Your task to perform on an android device: Open ESPN.com Image 0: 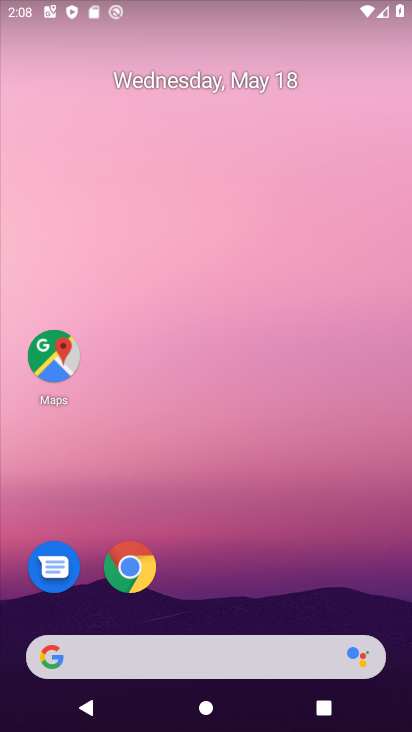
Step 0: drag from (241, 599) to (241, 267)
Your task to perform on an android device: Open ESPN.com Image 1: 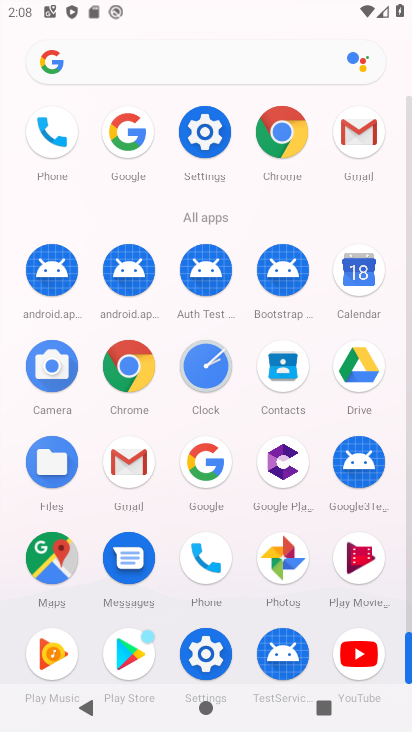
Step 1: click (277, 136)
Your task to perform on an android device: Open ESPN.com Image 2: 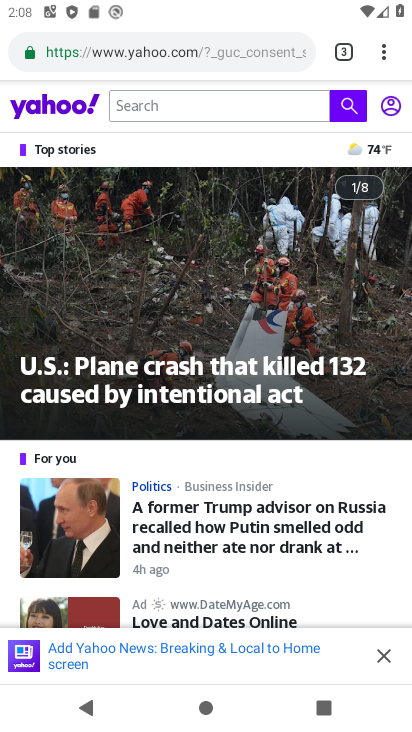
Step 2: click (391, 55)
Your task to perform on an android device: Open ESPN.com Image 3: 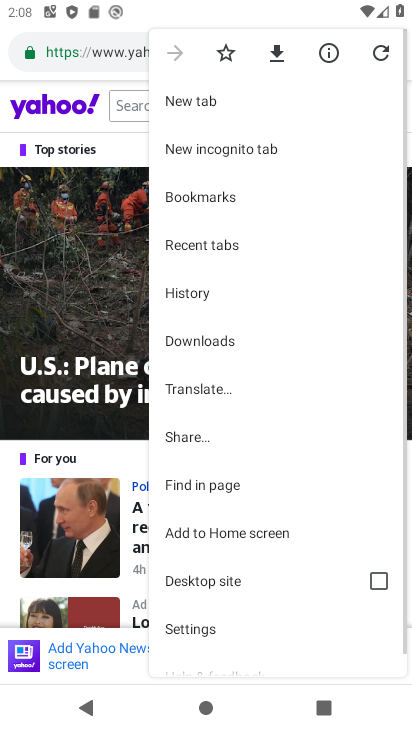
Step 3: drag from (211, 606) to (268, 352)
Your task to perform on an android device: Open ESPN.com Image 4: 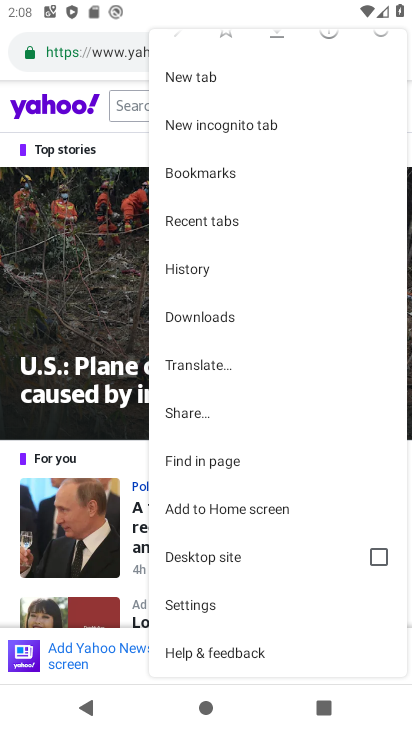
Step 4: click (207, 76)
Your task to perform on an android device: Open ESPN.com Image 5: 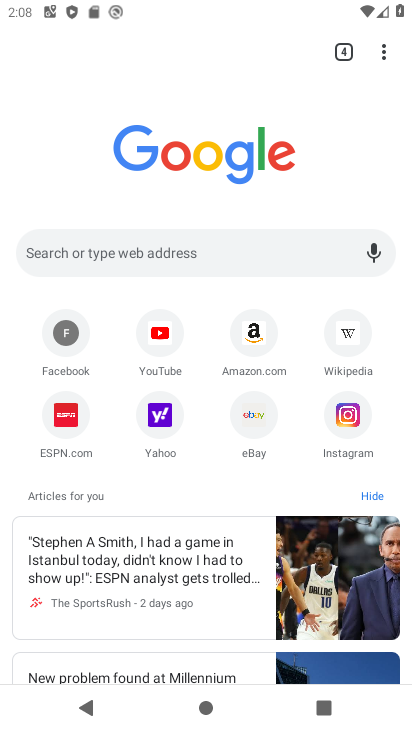
Step 5: click (69, 410)
Your task to perform on an android device: Open ESPN.com Image 6: 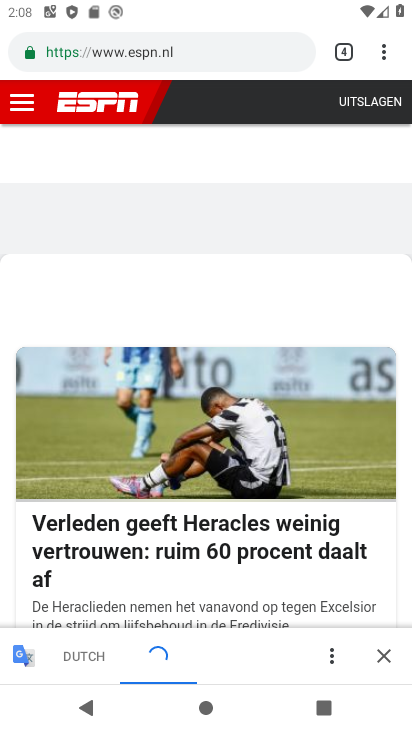
Step 6: task complete